Your task to perform on an android device: change notification settings in the gmail app Image 0: 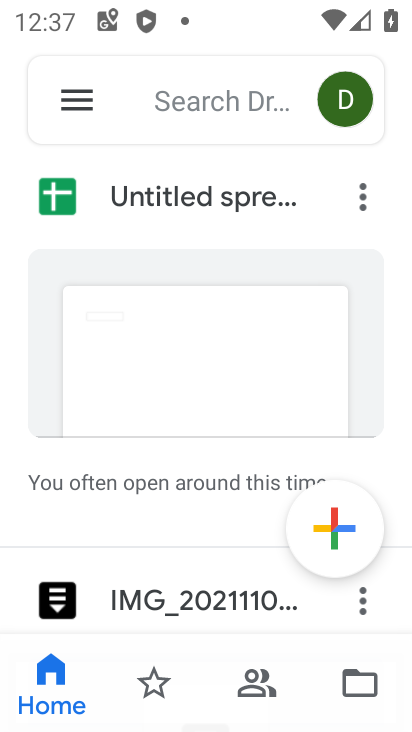
Step 0: press home button
Your task to perform on an android device: change notification settings in the gmail app Image 1: 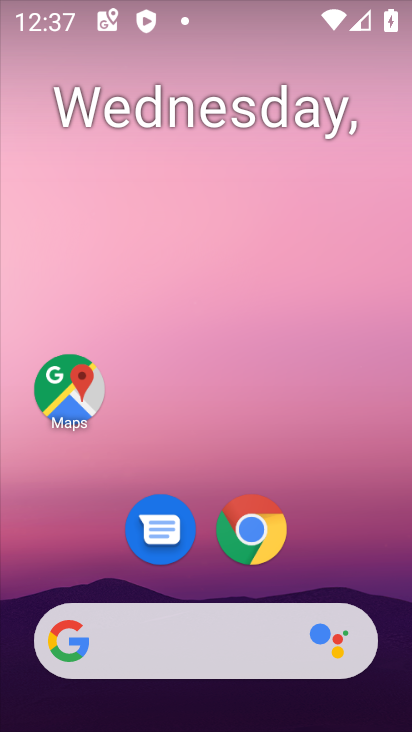
Step 1: drag from (393, 632) to (309, 0)
Your task to perform on an android device: change notification settings in the gmail app Image 2: 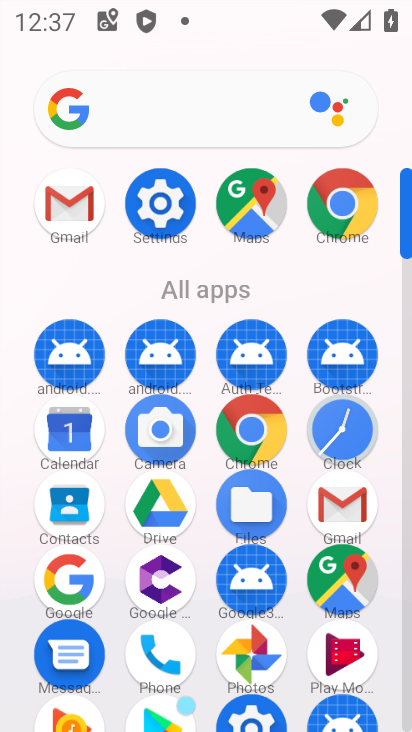
Step 2: click (401, 687)
Your task to perform on an android device: change notification settings in the gmail app Image 3: 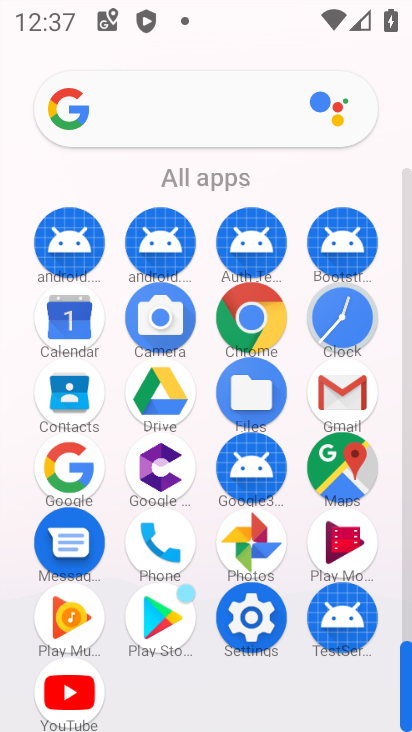
Step 3: click (342, 394)
Your task to perform on an android device: change notification settings in the gmail app Image 4: 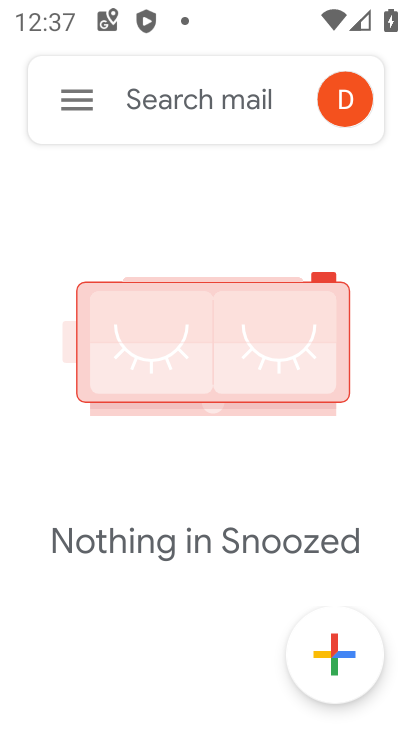
Step 4: click (84, 104)
Your task to perform on an android device: change notification settings in the gmail app Image 5: 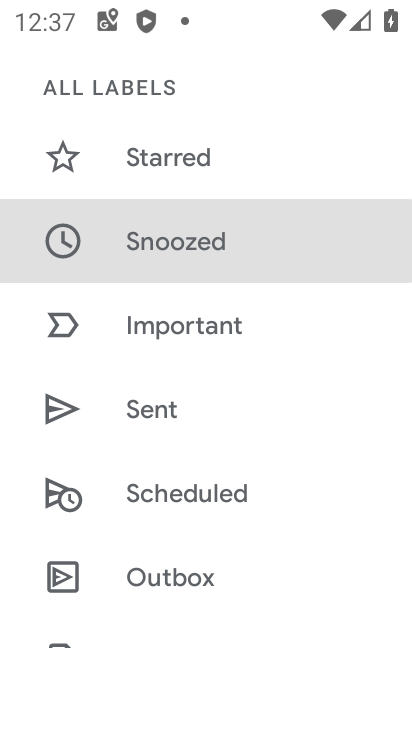
Step 5: drag from (278, 559) to (261, 109)
Your task to perform on an android device: change notification settings in the gmail app Image 6: 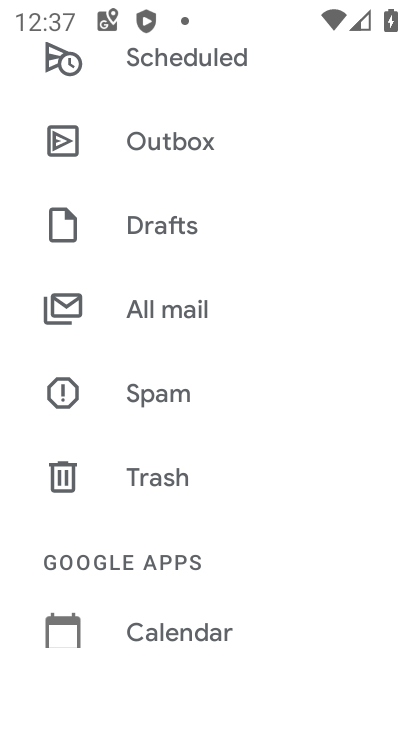
Step 6: drag from (295, 597) to (261, 109)
Your task to perform on an android device: change notification settings in the gmail app Image 7: 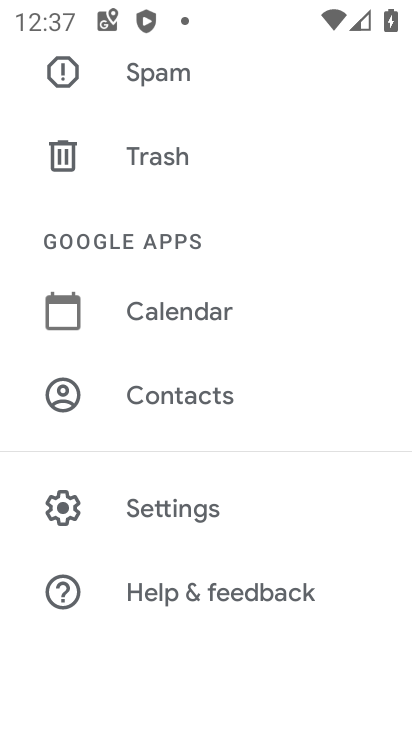
Step 7: click (192, 500)
Your task to perform on an android device: change notification settings in the gmail app Image 8: 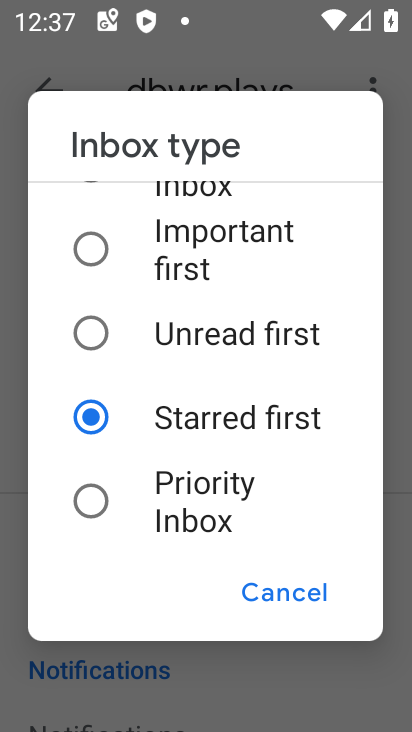
Step 8: click (271, 599)
Your task to perform on an android device: change notification settings in the gmail app Image 9: 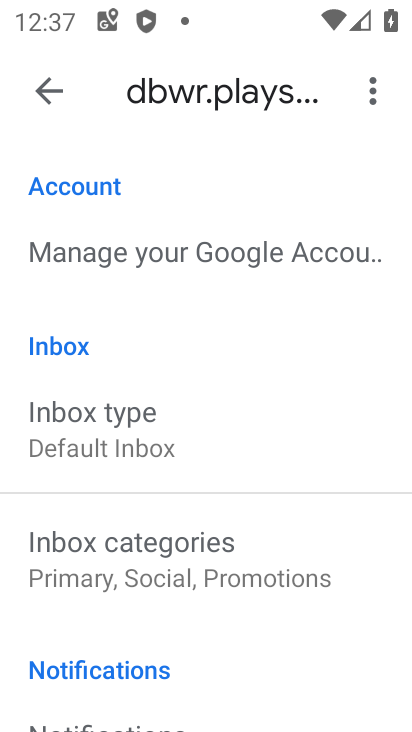
Step 9: drag from (282, 640) to (279, 196)
Your task to perform on an android device: change notification settings in the gmail app Image 10: 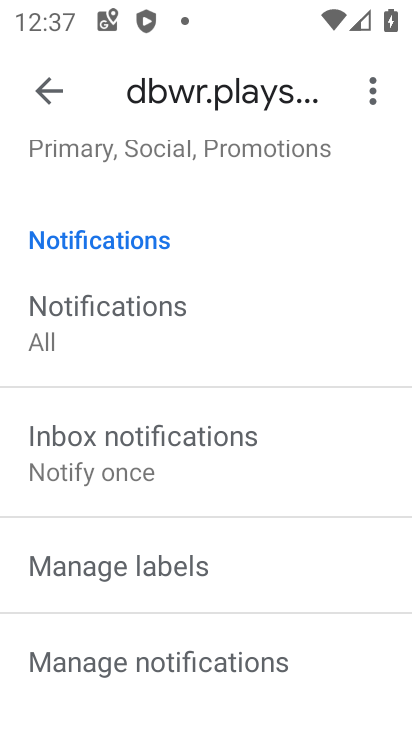
Step 10: drag from (288, 541) to (285, 177)
Your task to perform on an android device: change notification settings in the gmail app Image 11: 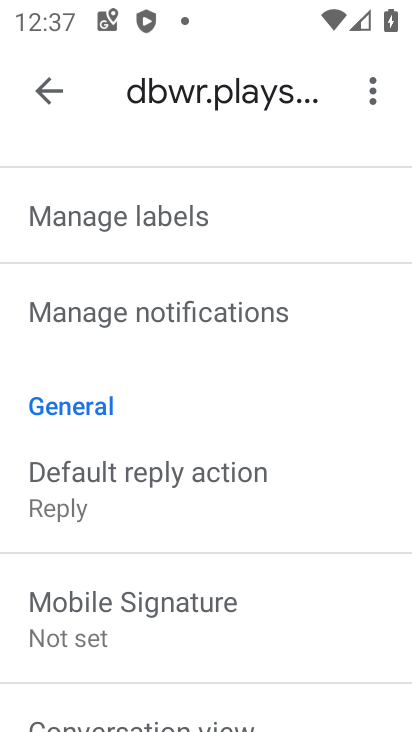
Step 11: click (163, 307)
Your task to perform on an android device: change notification settings in the gmail app Image 12: 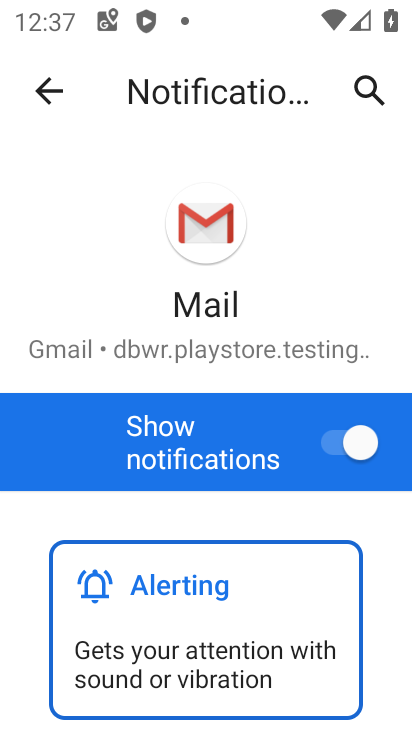
Step 12: drag from (323, 516) to (309, 229)
Your task to perform on an android device: change notification settings in the gmail app Image 13: 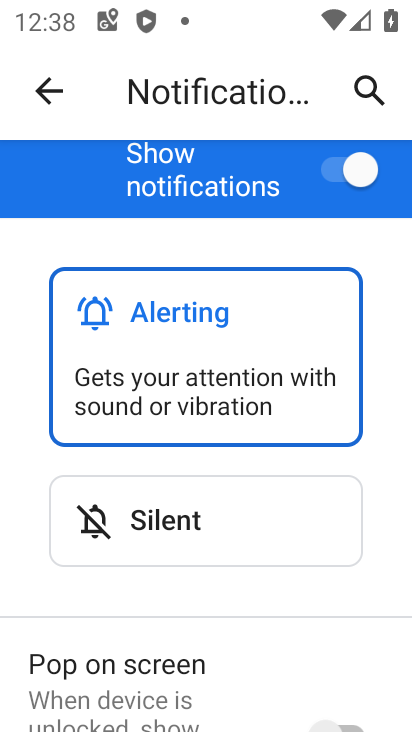
Step 13: click (335, 165)
Your task to perform on an android device: change notification settings in the gmail app Image 14: 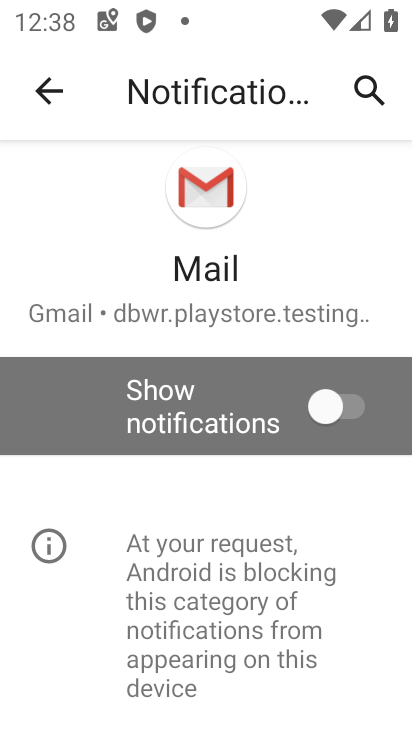
Step 14: task complete